Your task to perform on an android device: Go to CNN.com Image 0: 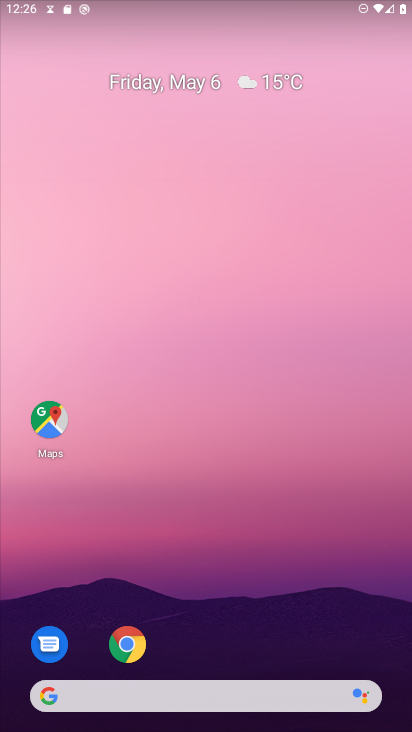
Step 0: drag from (291, 550) to (269, 18)
Your task to perform on an android device: Go to CNN.com Image 1: 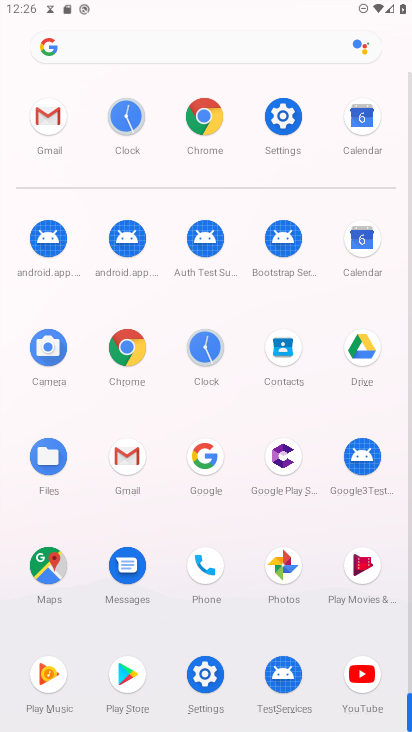
Step 1: drag from (2, 543) to (8, 302)
Your task to perform on an android device: Go to CNN.com Image 2: 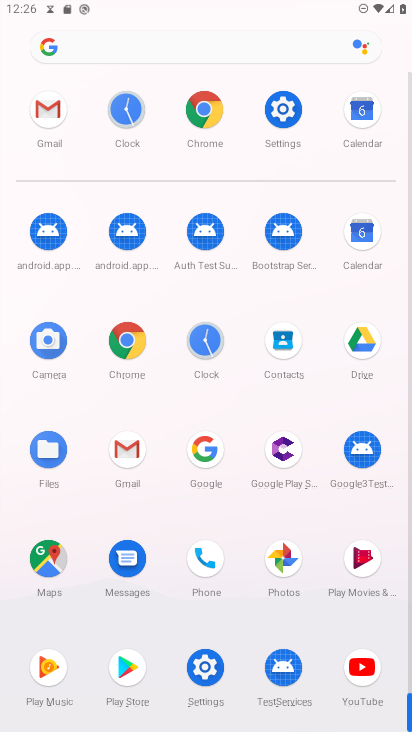
Step 2: click (126, 336)
Your task to perform on an android device: Go to CNN.com Image 3: 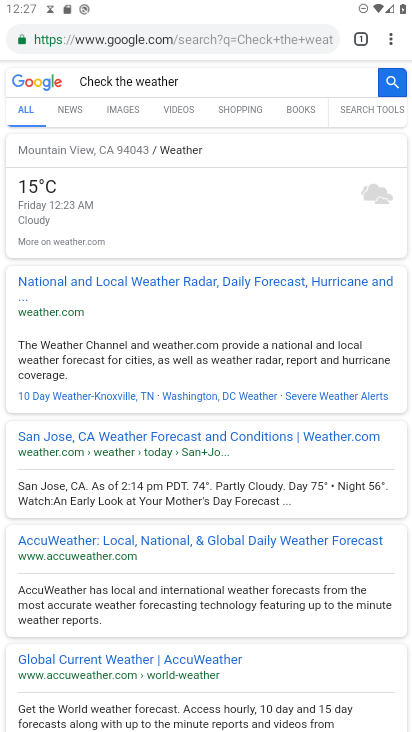
Step 3: click (171, 35)
Your task to perform on an android device: Go to CNN.com Image 4: 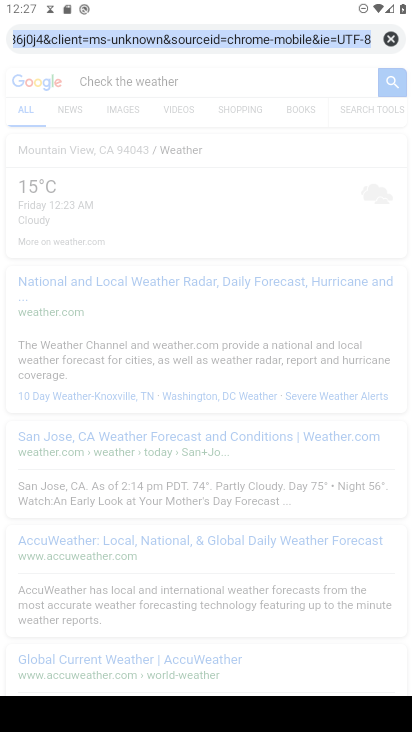
Step 4: click (389, 34)
Your task to perform on an android device: Go to CNN.com Image 5: 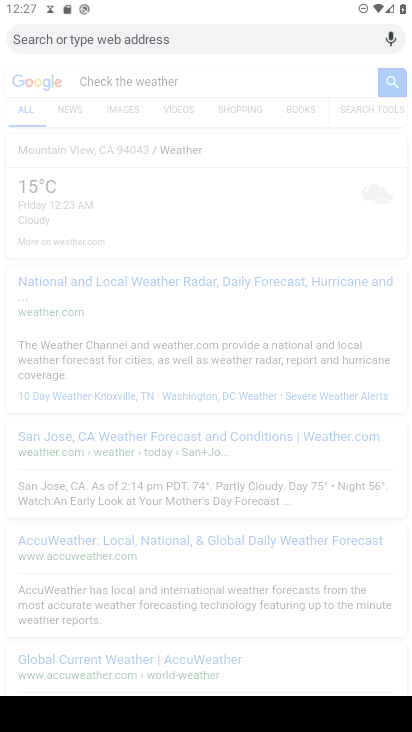
Step 5: type "CNN.com"
Your task to perform on an android device: Go to CNN.com Image 6: 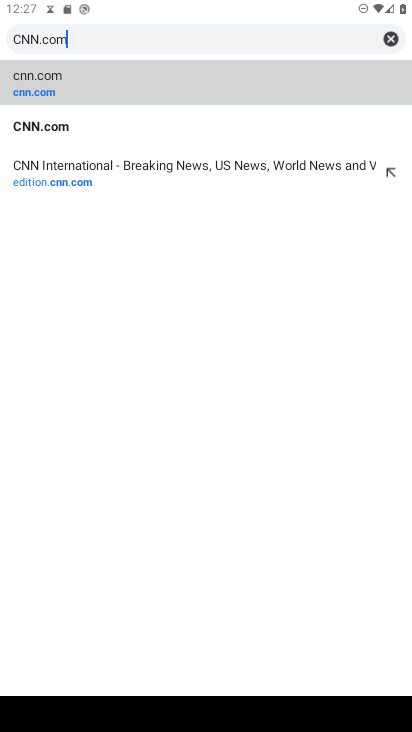
Step 6: type ""
Your task to perform on an android device: Go to CNN.com Image 7: 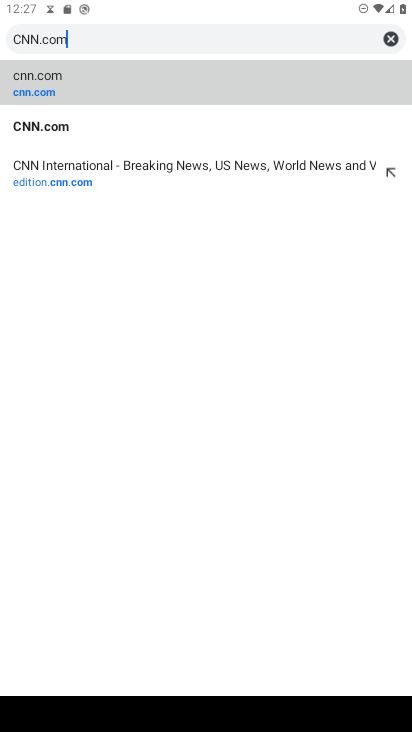
Step 7: click (71, 78)
Your task to perform on an android device: Go to CNN.com Image 8: 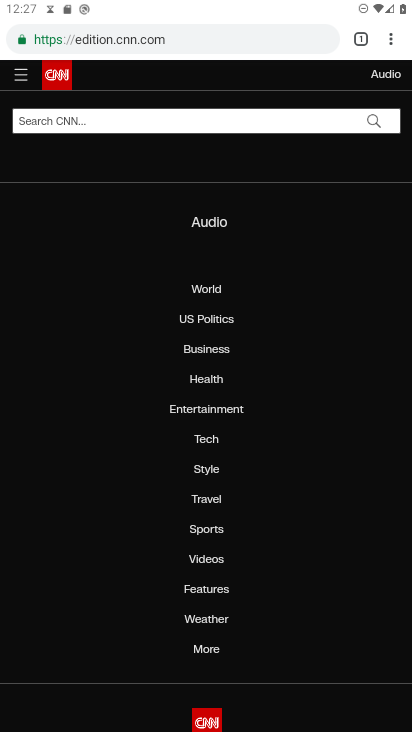
Step 8: task complete